Your task to perform on an android device: Open location settings Image 0: 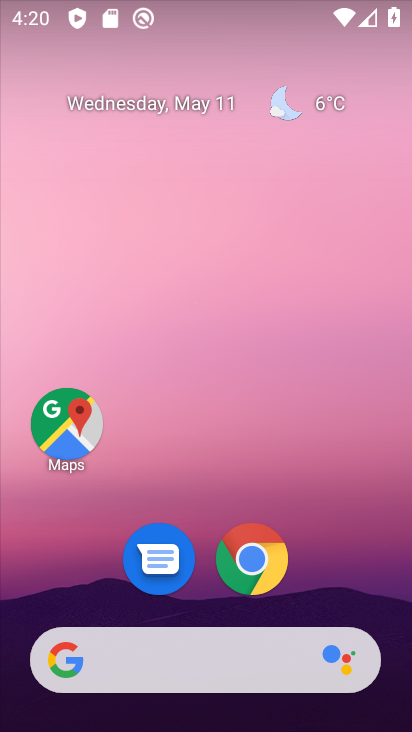
Step 0: drag from (324, 613) to (281, 152)
Your task to perform on an android device: Open location settings Image 1: 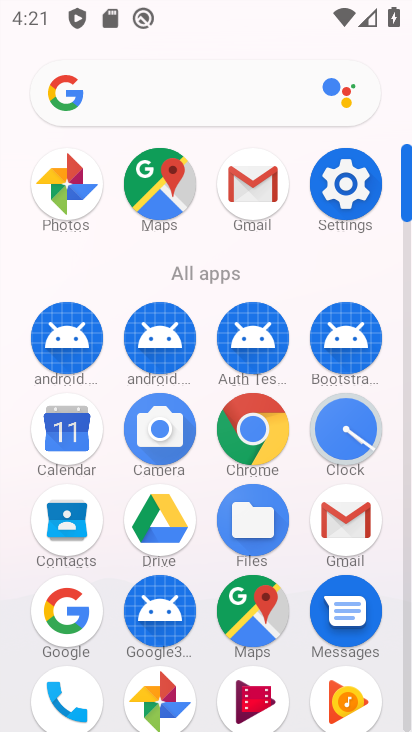
Step 1: click (348, 191)
Your task to perform on an android device: Open location settings Image 2: 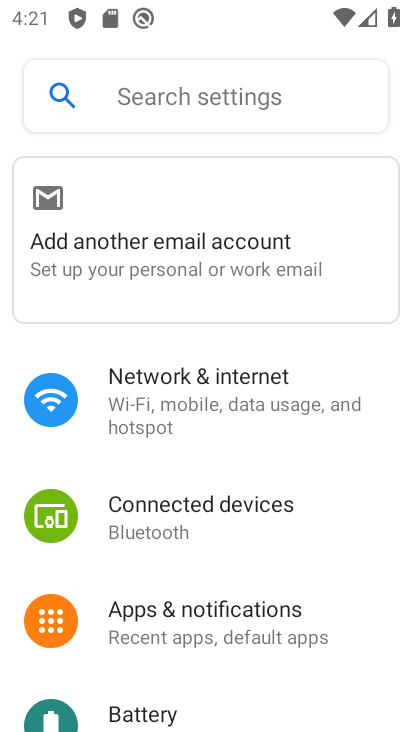
Step 2: drag from (211, 588) to (226, 152)
Your task to perform on an android device: Open location settings Image 3: 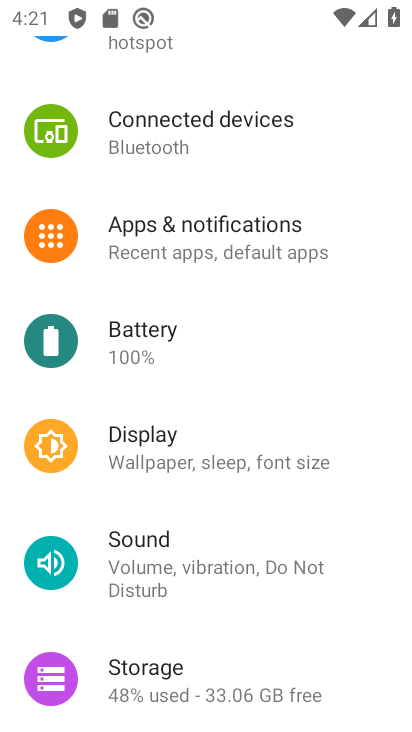
Step 3: drag from (182, 535) to (253, 223)
Your task to perform on an android device: Open location settings Image 4: 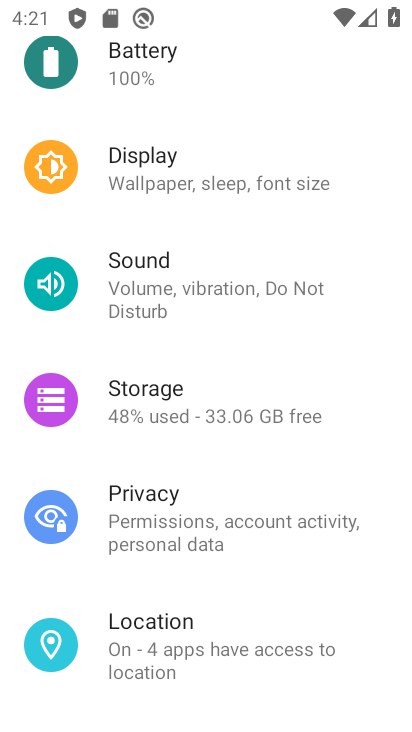
Step 4: click (132, 639)
Your task to perform on an android device: Open location settings Image 5: 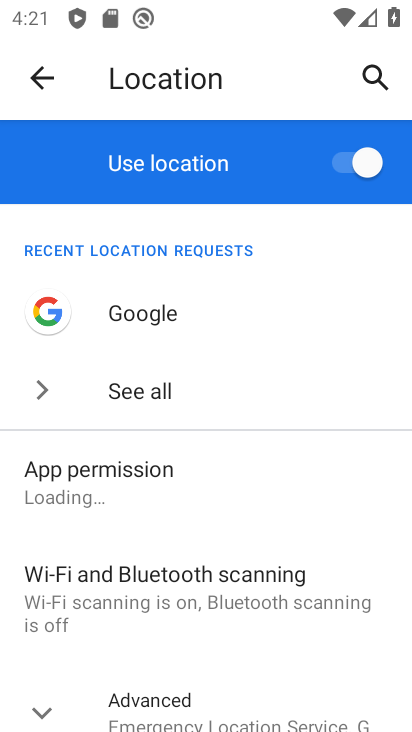
Step 5: task complete